Your task to perform on an android device: Open Yahoo.com Image 0: 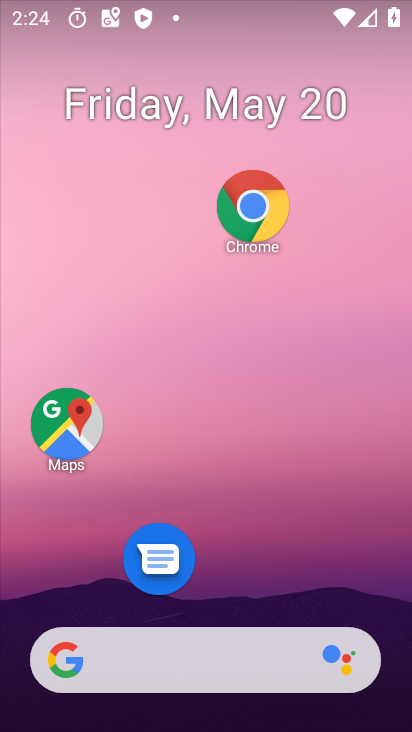
Step 0: drag from (254, 599) to (234, 130)
Your task to perform on an android device: Open Yahoo.com Image 1: 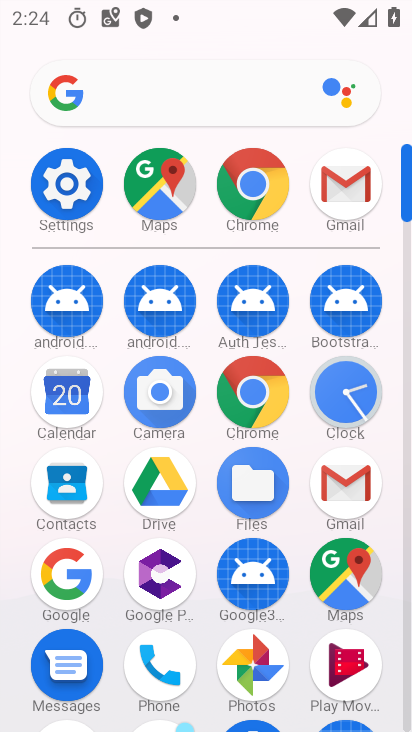
Step 1: click (265, 202)
Your task to perform on an android device: Open Yahoo.com Image 2: 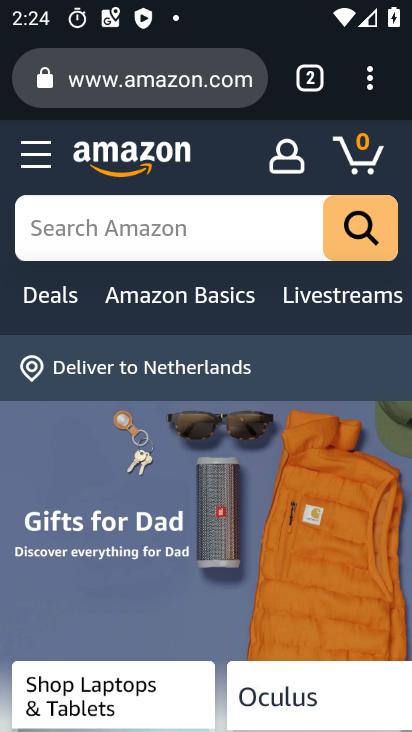
Step 2: click (294, 70)
Your task to perform on an android device: Open Yahoo.com Image 3: 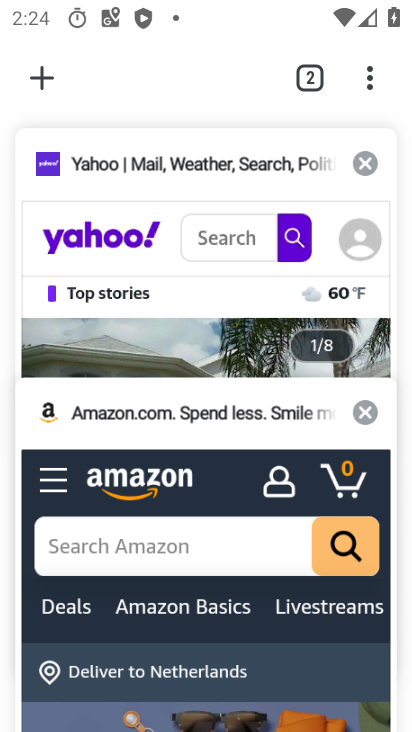
Step 3: click (210, 250)
Your task to perform on an android device: Open Yahoo.com Image 4: 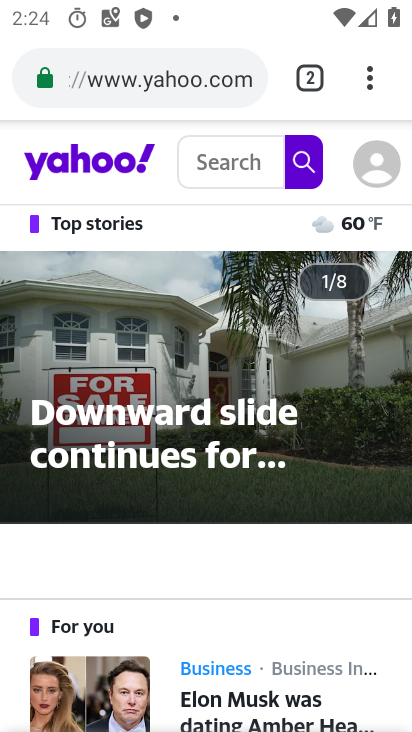
Step 4: task complete